Your task to perform on an android device: turn off javascript in the chrome app Image 0: 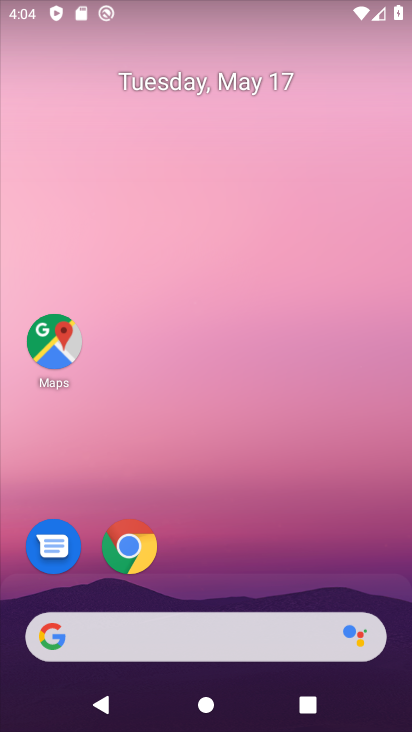
Step 0: click (139, 550)
Your task to perform on an android device: turn off javascript in the chrome app Image 1: 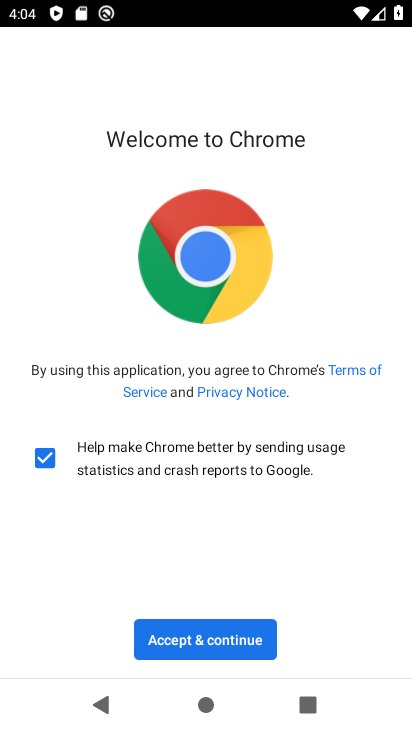
Step 1: click (144, 646)
Your task to perform on an android device: turn off javascript in the chrome app Image 2: 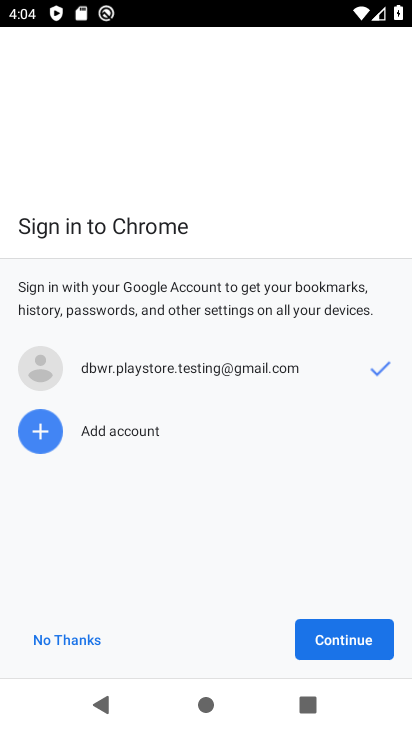
Step 2: click (368, 646)
Your task to perform on an android device: turn off javascript in the chrome app Image 3: 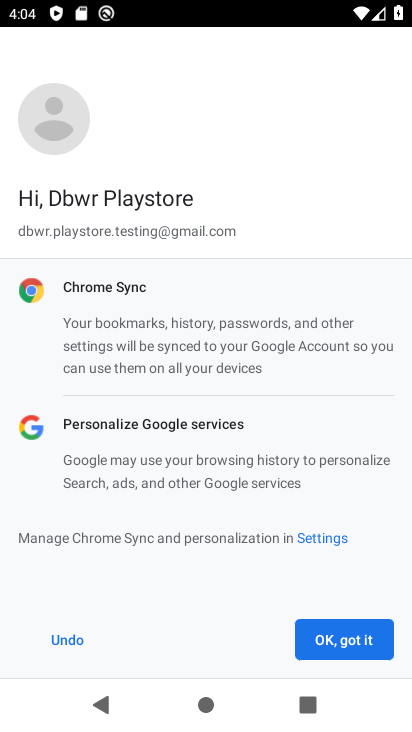
Step 3: click (368, 646)
Your task to perform on an android device: turn off javascript in the chrome app Image 4: 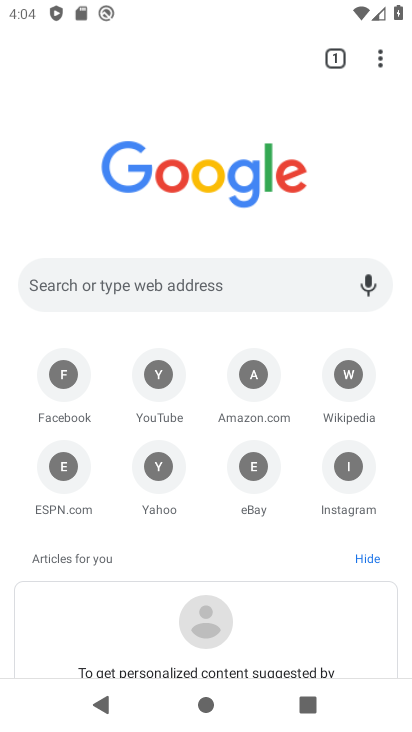
Step 4: drag from (382, 69) to (288, 483)
Your task to perform on an android device: turn off javascript in the chrome app Image 5: 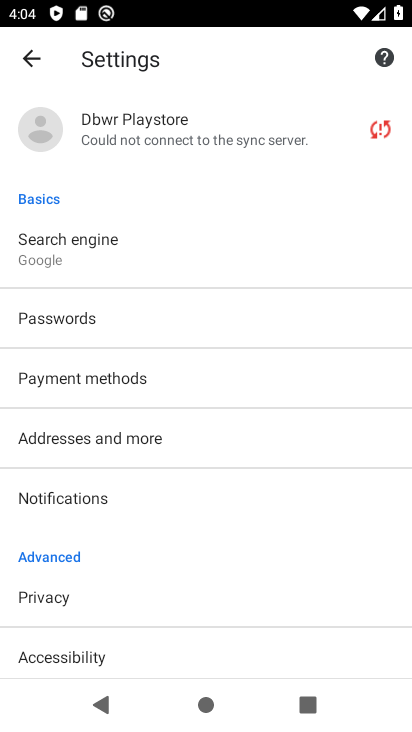
Step 5: drag from (255, 608) to (295, 235)
Your task to perform on an android device: turn off javascript in the chrome app Image 6: 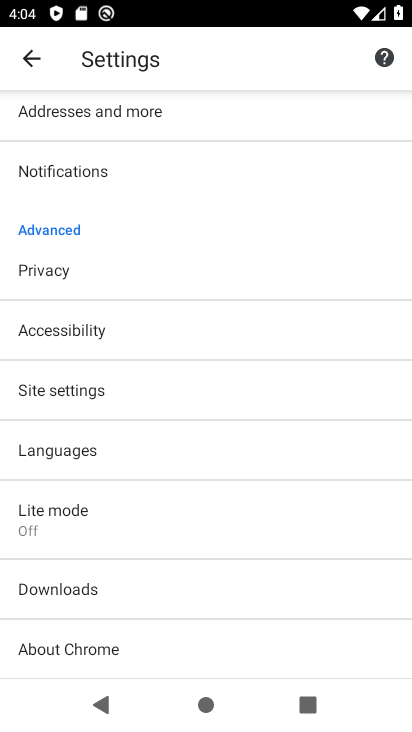
Step 6: click (113, 388)
Your task to perform on an android device: turn off javascript in the chrome app Image 7: 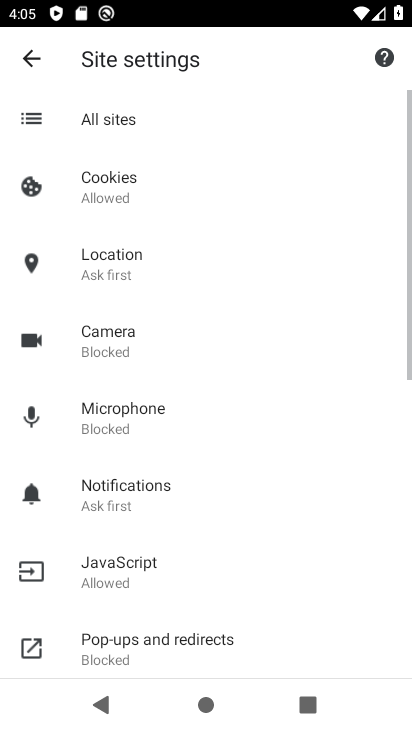
Step 7: click (138, 579)
Your task to perform on an android device: turn off javascript in the chrome app Image 8: 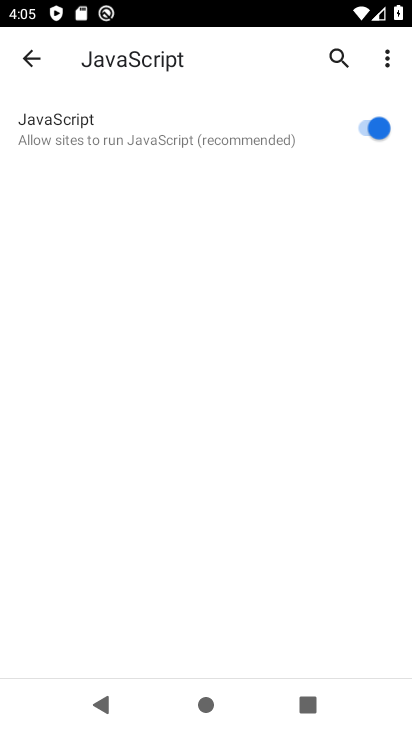
Step 8: click (375, 119)
Your task to perform on an android device: turn off javascript in the chrome app Image 9: 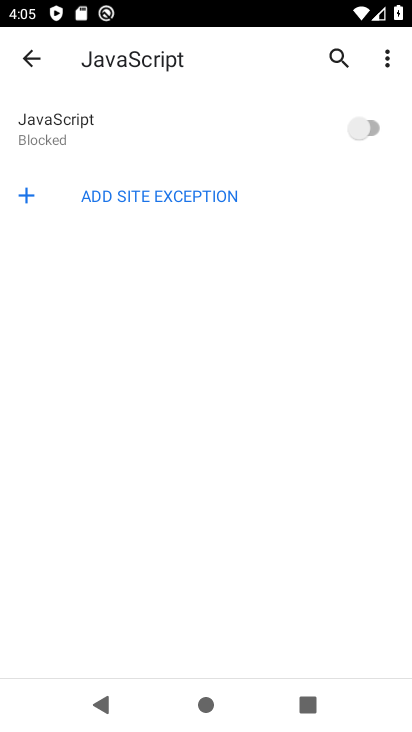
Step 9: task complete